Your task to perform on an android device: open sync settings in chrome Image 0: 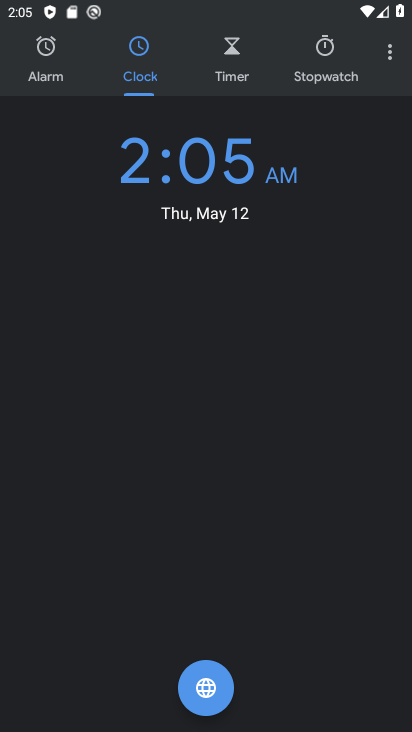
Step 0: press back button
Your task to perform on an android device: open sync settings in chrome Image 1: 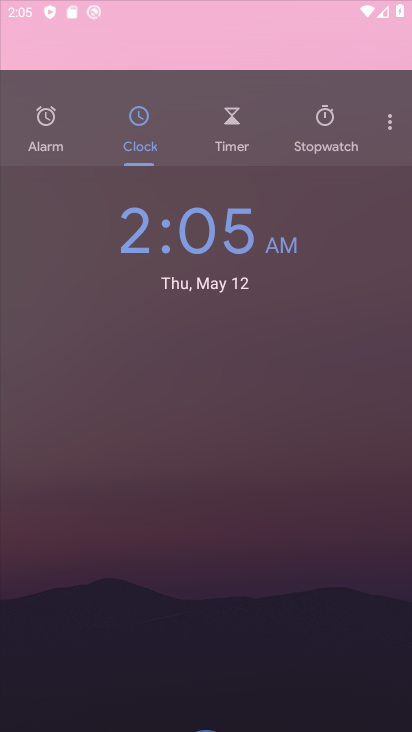
Step 1: press home button
Your task to perform on an android device: open sync settings in chrome Image 2: 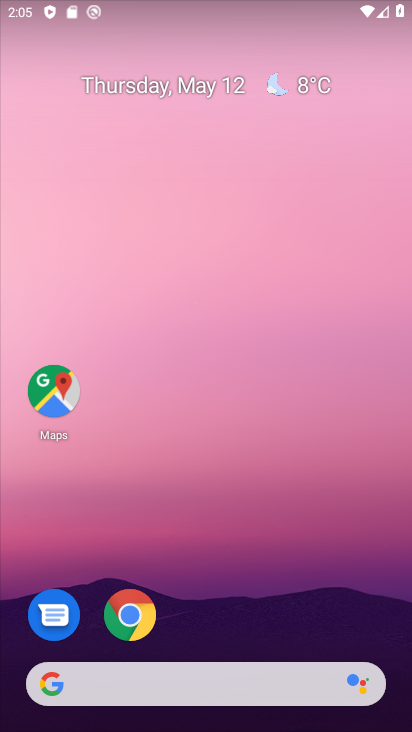
Step 2: click (130, 636)
Your task to perform on an android device: open sync settings in chrome Image 3: 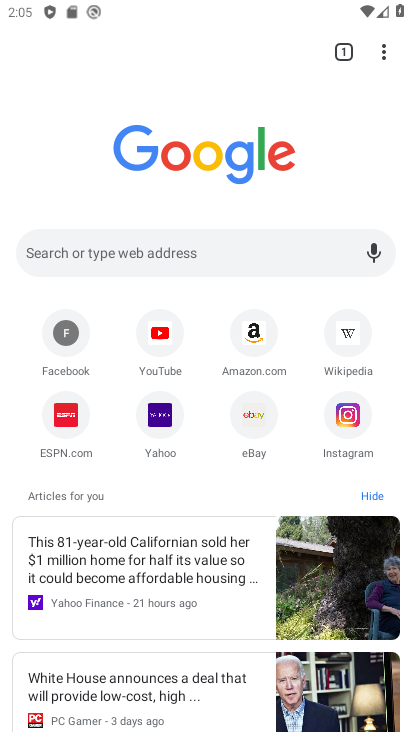
Step 3: drag from (393, 43) to (229, 504)
Your task to perform on an android device: open sync settings in chrome Image 4: 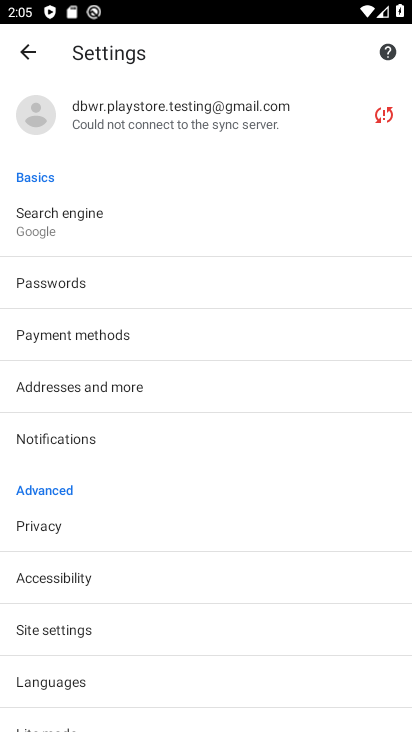
Step 4: click (206, 129)
Your task to perform on an android device: open sync settings in chrome Image 5: 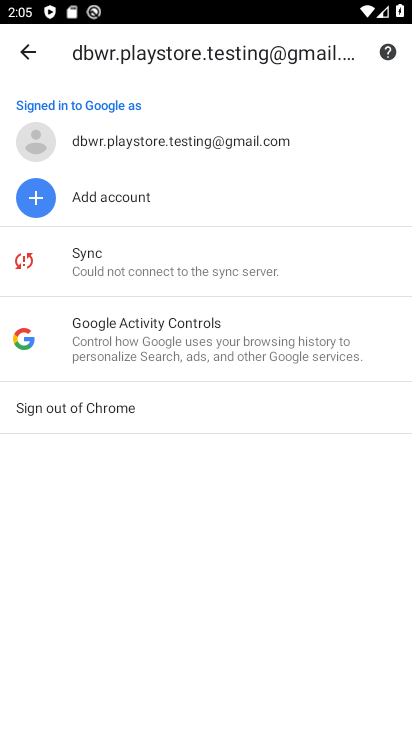
Step 5: click (200, 277)
Your task to perform on an android device: open sync settings in chrome Image 6: 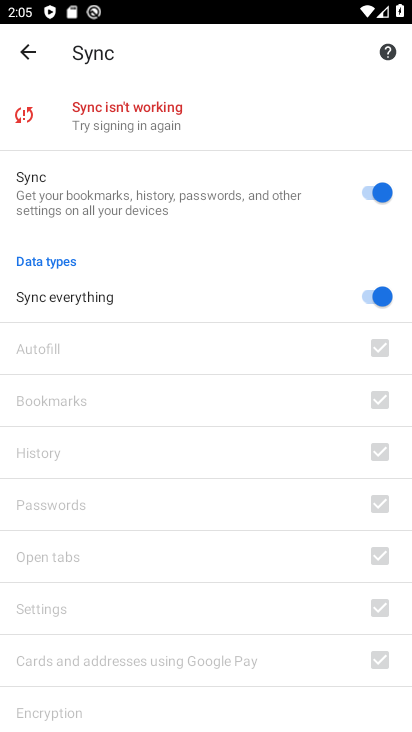
Step 6: task complete